Your task to perform on an android device: Check out the best rated electric trimmers on Lowe's Image 0: 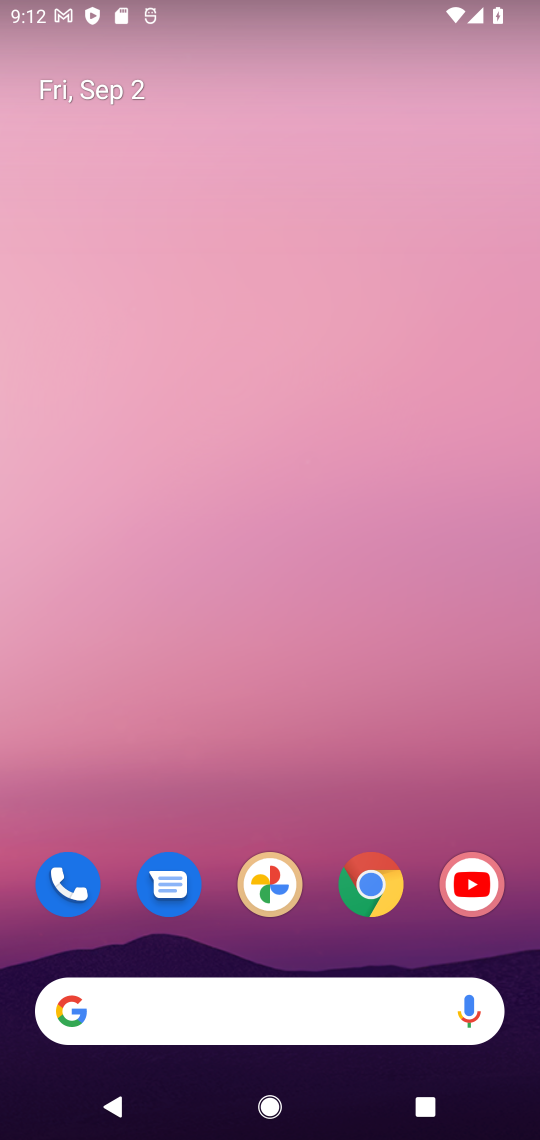
Step 0: click (387, 889)
Your task to perform on an android device: Check out the best rated electric trimmers on Lowe's Image 1: 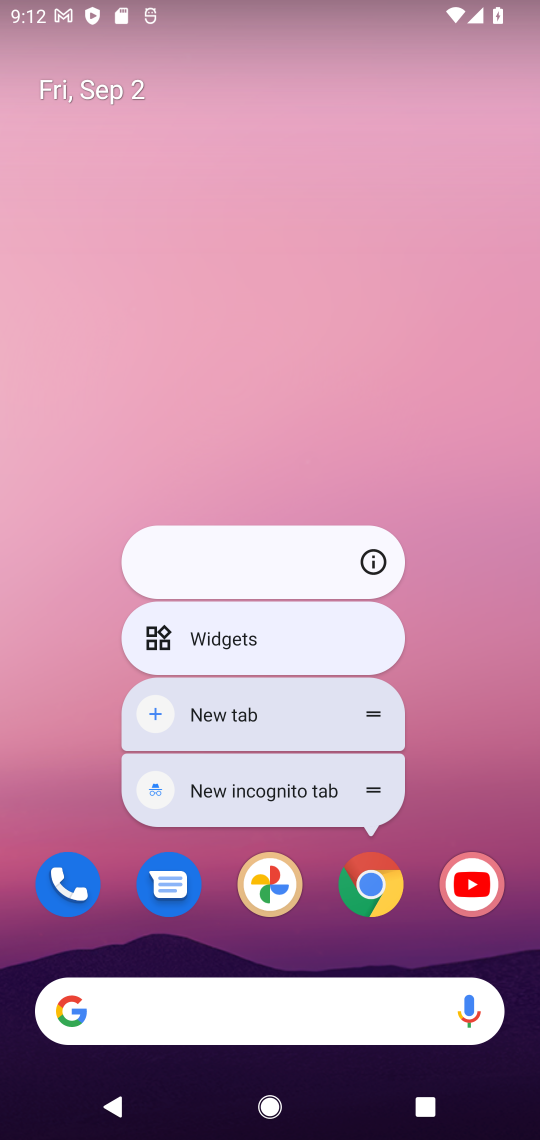
Step 1: click (381, 885)
Your task to perform on an android device: Check out the best rated electric trimmers on Lowe's Image 2: 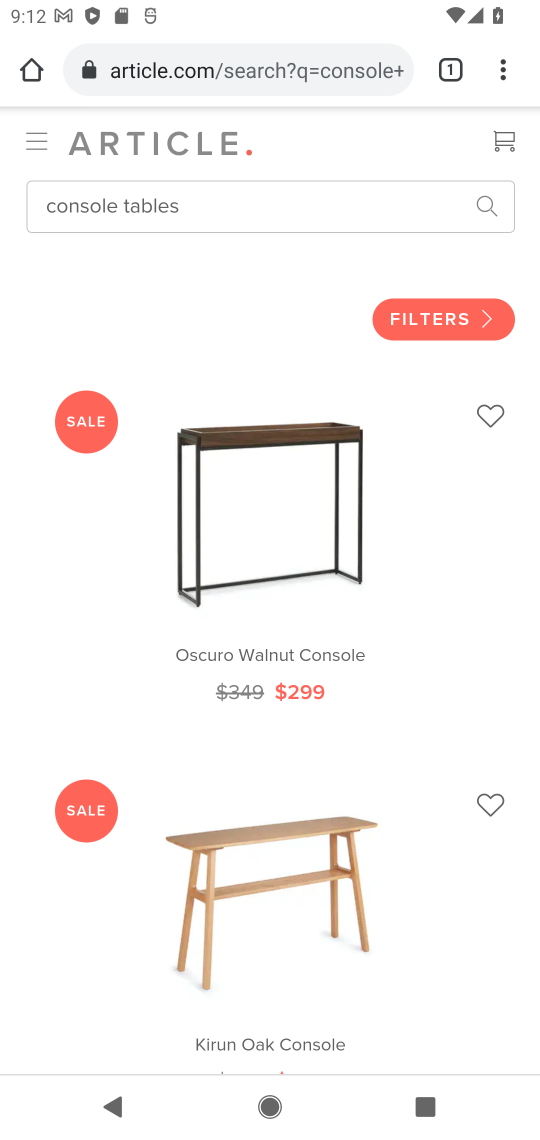
Step 2: click (265, 70)
Your task to perform on an android device: Check out the best rated electric trimmers on Lowe's Image 3: 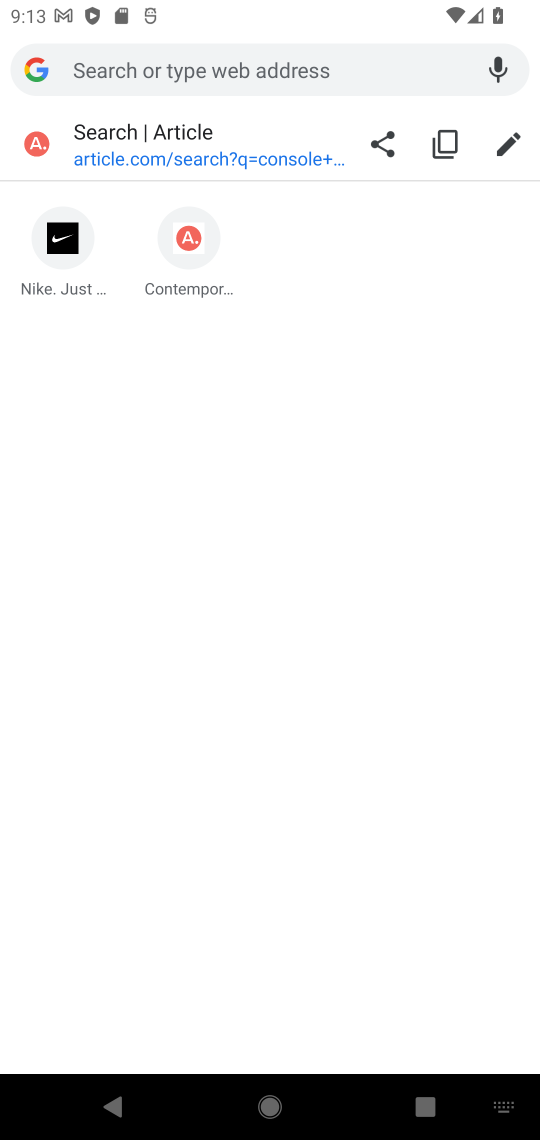
Step 3: type "Lowe's"
Your task to perform on an android device: Check out the best rated electric trimmers on Lowe's Image 4: 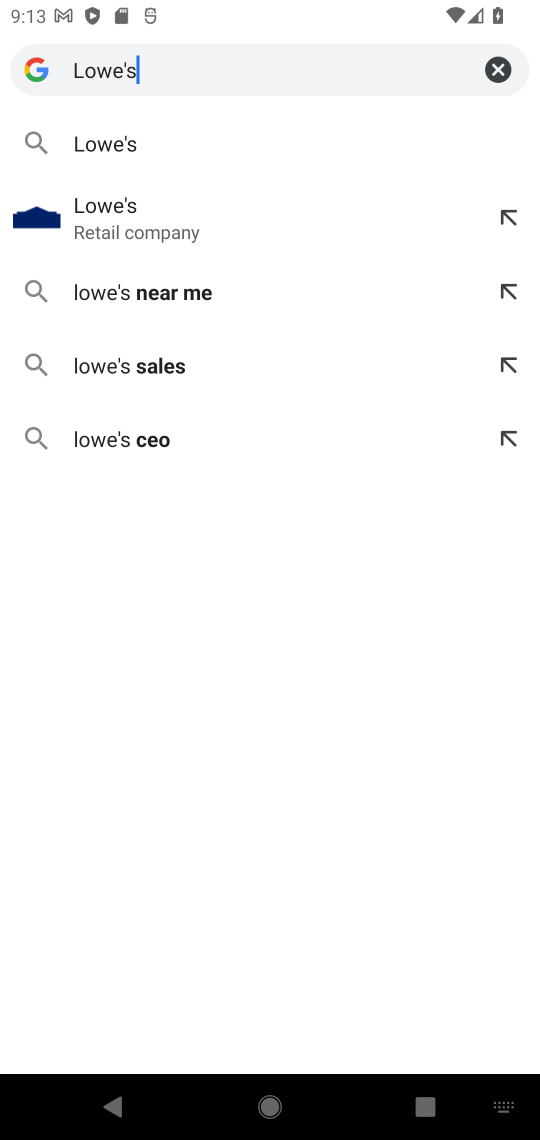
Step 4: click (99, 149)
Your task to perform on an android device: Check out the best rated electric trimmers on Lowe's Image 5: 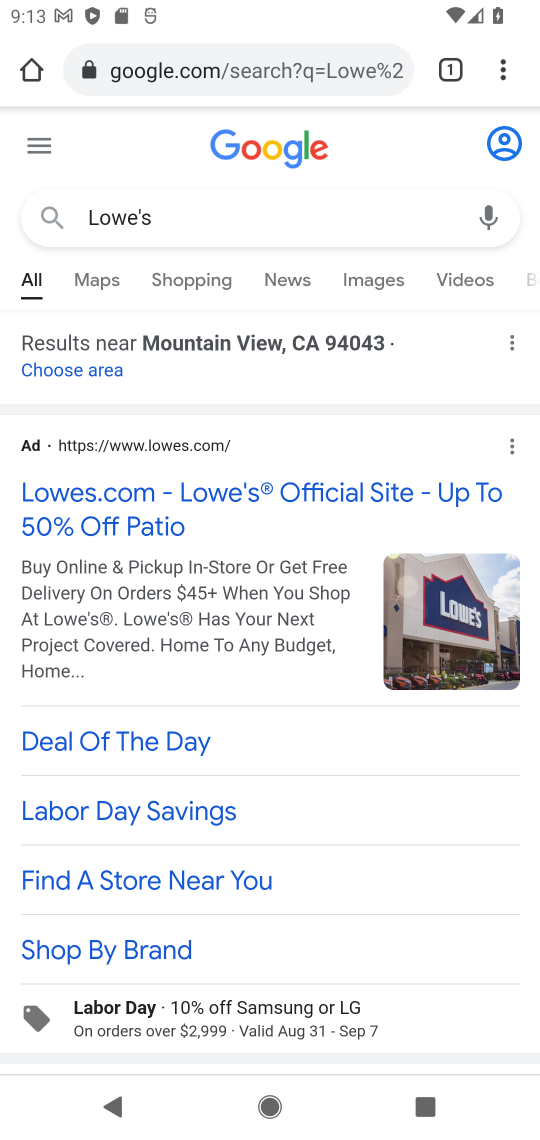
Step 5: click (76, 498)
Your task to perform on an android device: Check out the best rated electric trimmers on Lowe's Image 6: 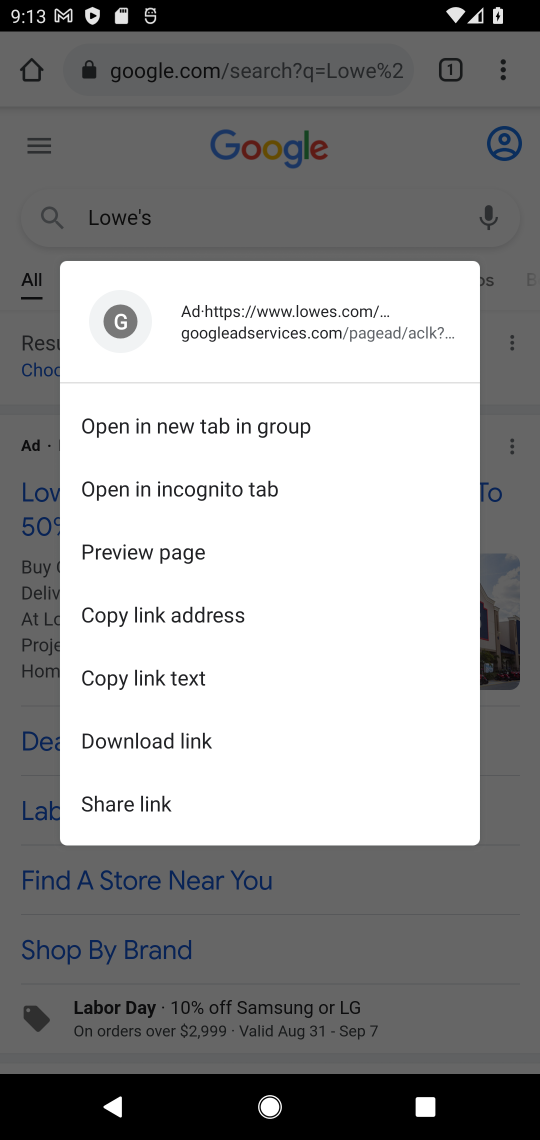
Step 6: click (49, 497)
Your task to perform on an android device: Check out the best rated electric trimmers on Lowe's Image 7: 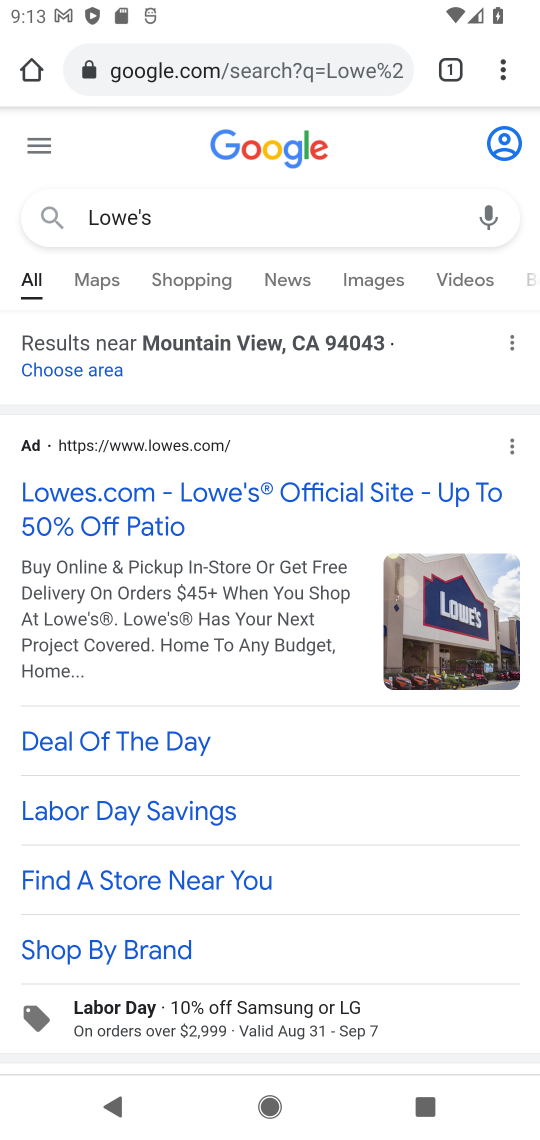
Step 7: click (89, 520)
Your task to perform on an android device: Check out the best rated electric trimmers on Lowe's Image 8: 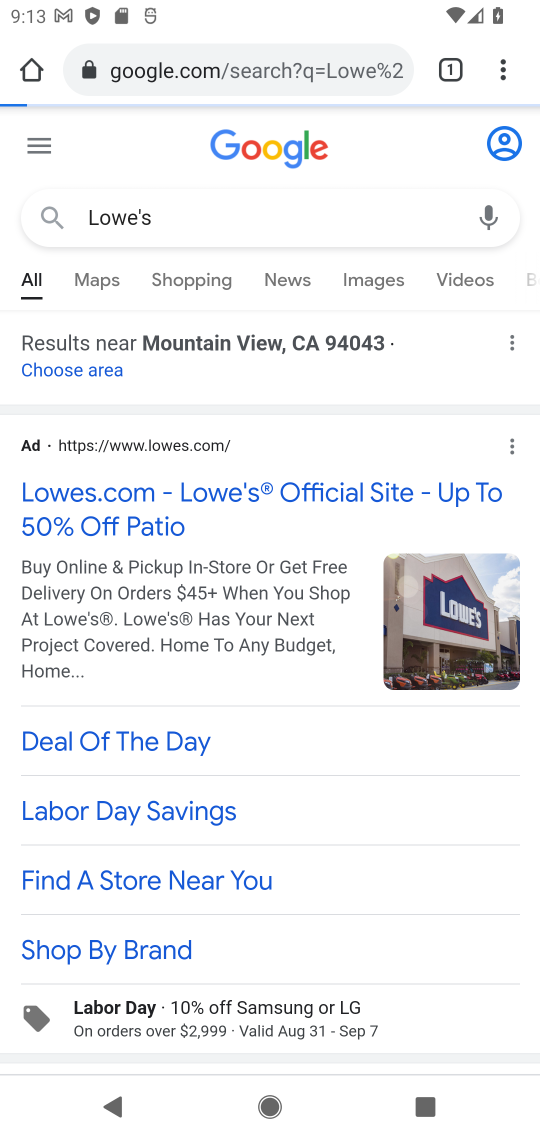
Step 8: drag from (418, 879) to (419, 357)
Your task to perform on an android device: Check out the best rated electric trimmers on Lowe's Image 9: 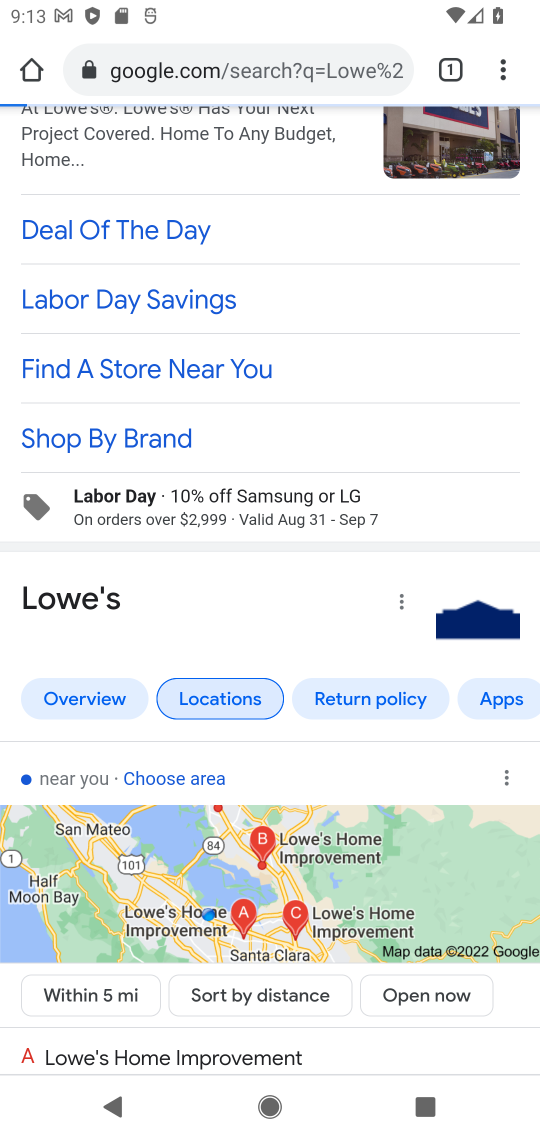
Step 9: click (86, 601)
Your task to perform on an android device: Check out the best rated electric trimmers on Lowe's Image 10: 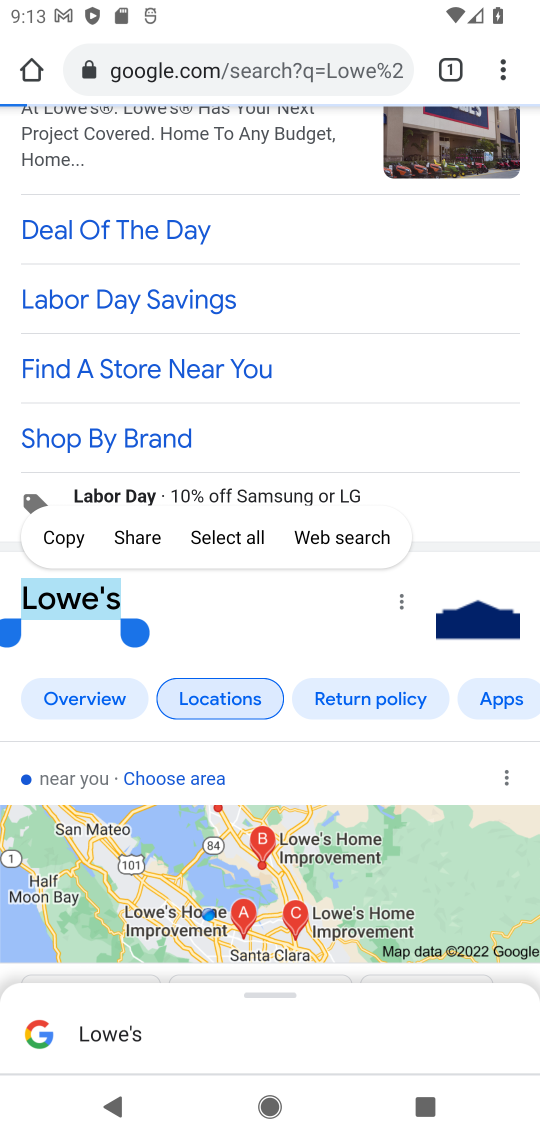
Step 10: drag from (341, 765) to (311, 248)
Your task to perform on an android device: Check out the best rated electric trimmers on Lowe's Image 11: 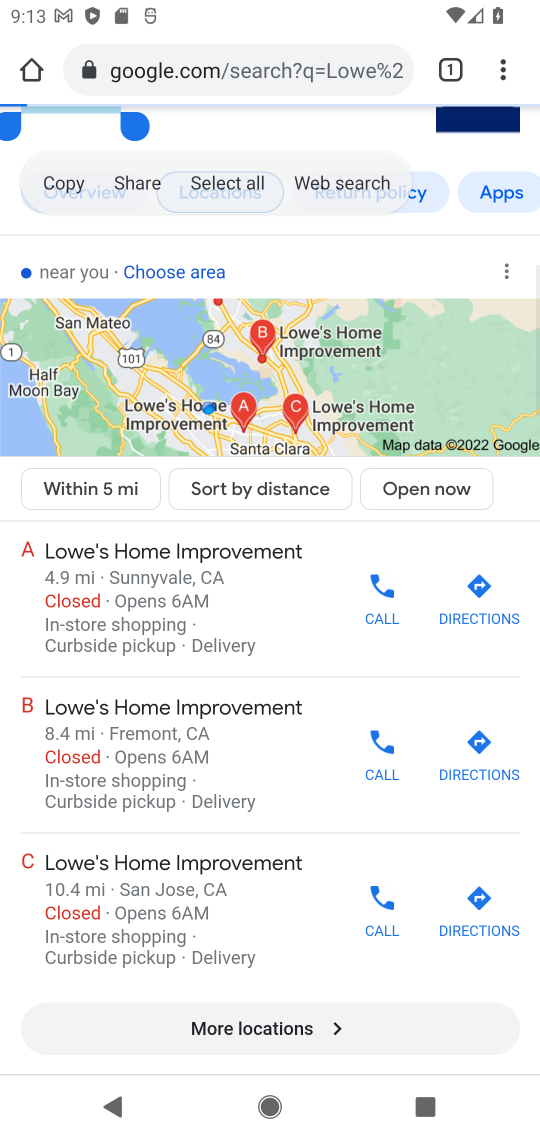
Step 11: drag from (381, 716) to (346, 306)
Your task to perform on an android device: Check out the best rated electric trimmers on Lowe's Image 12: 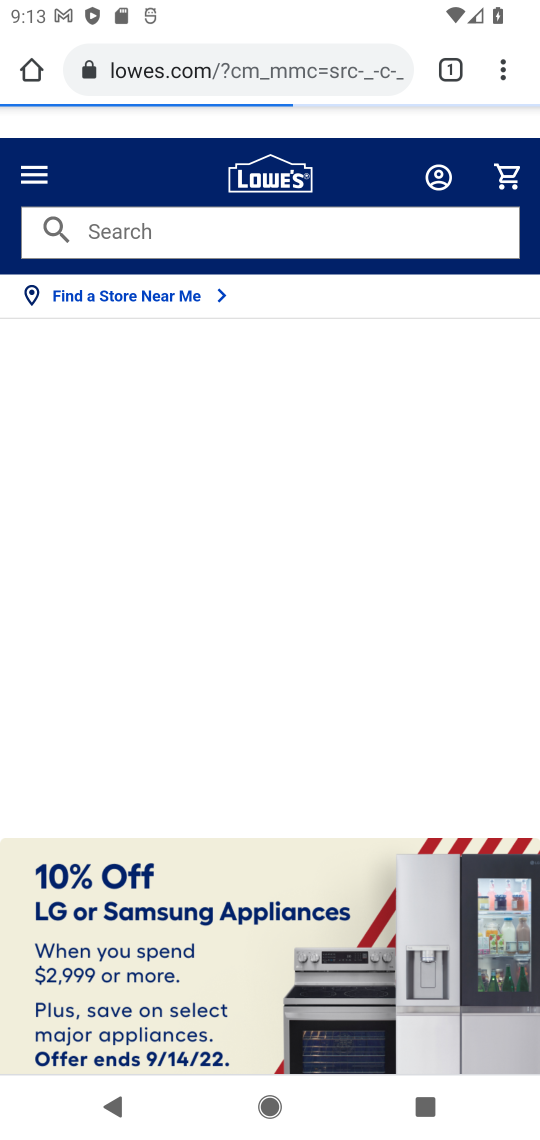
Step 12: click (114, 240)
Your task to perform on an android device: Check out the best rated electric trimmers on Lowe's Image 13: 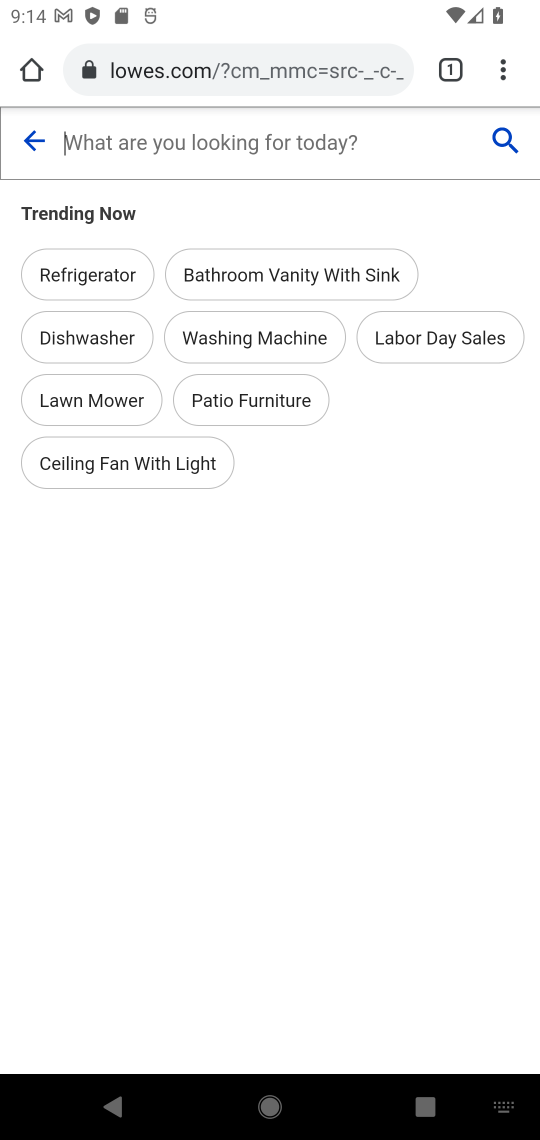
Step 13: type "best rated electric trimmers "
Your task to perform on an android device: Check out the best rated electric trimmers on Lowe's Image 14: 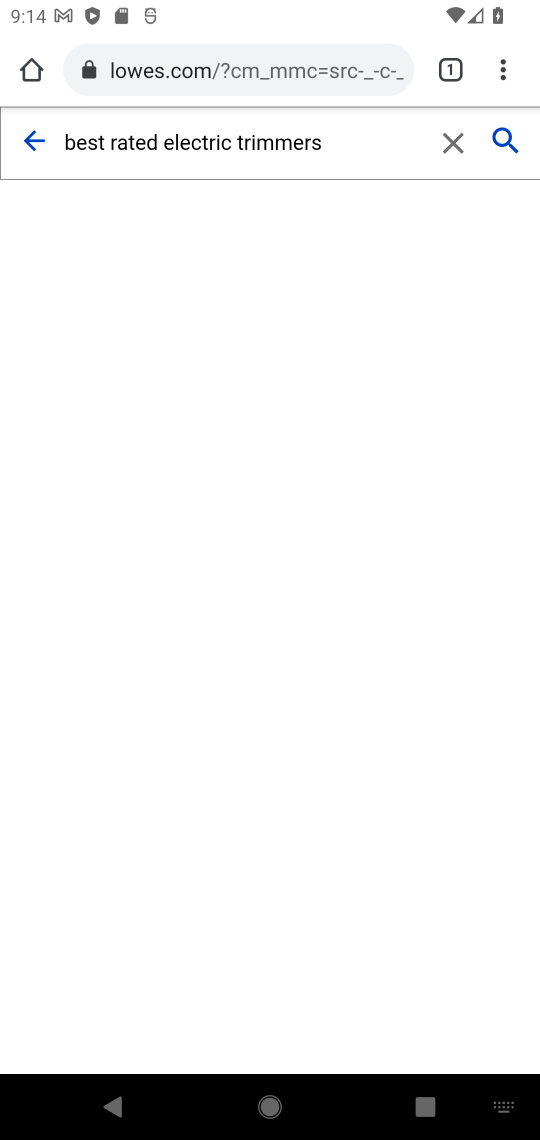
Step 14: click (500, 142)
Your task to perform on an android device: Check out the best rated electric trimmers on Lowe's Image 15: 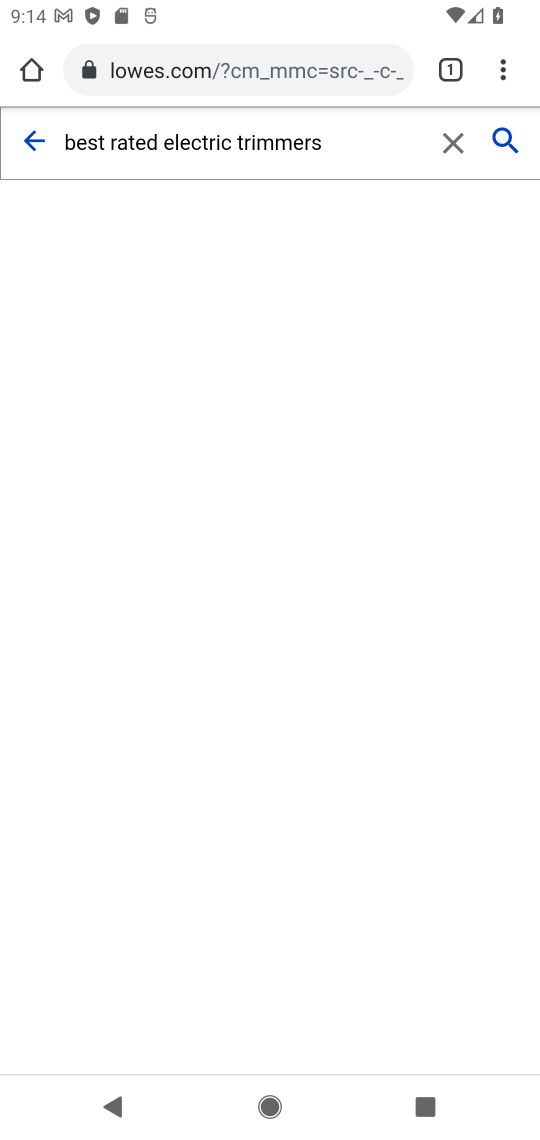
Step 15: click (501, 144)
Your task to perform on an android device: Check out the best rated electric trimmers on Lowe's Image 16: 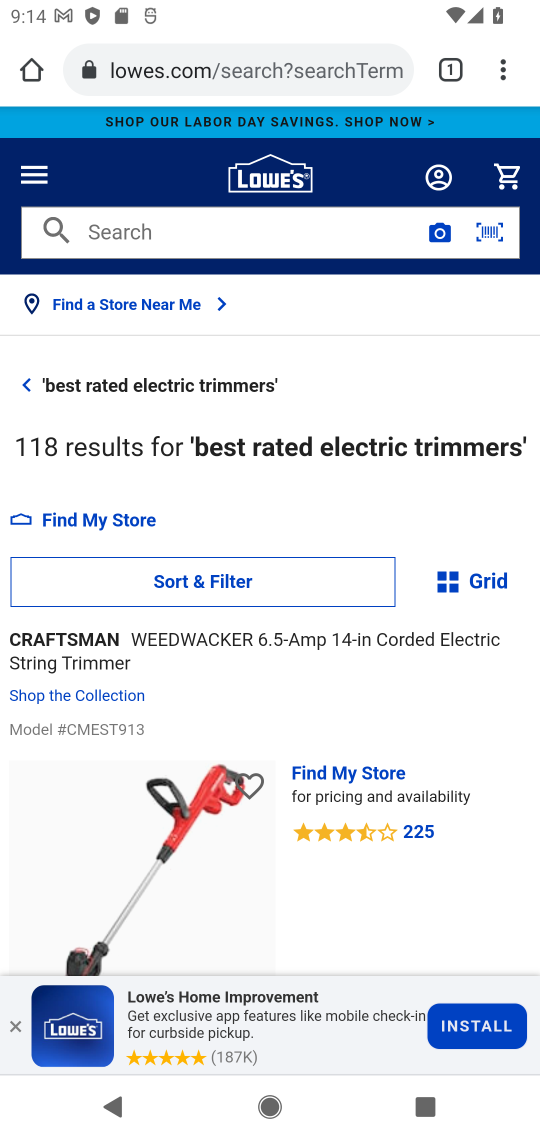
Step 16: drag from (289, 650) to (297, 391)
Your task to perform on an android device: Check out the best rated electric trimmers on Lowe's Image 17: 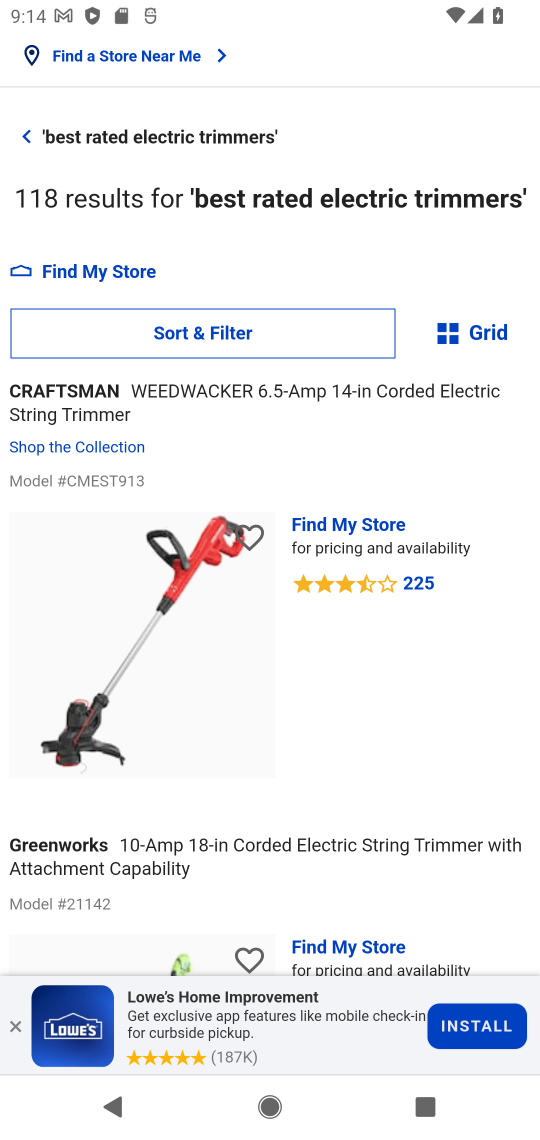
Step 17: drag from (268, 698) to (282, 452)
Your task to perform on an android device: Check out the best rated electric trimmers on Lowe's Image 18: 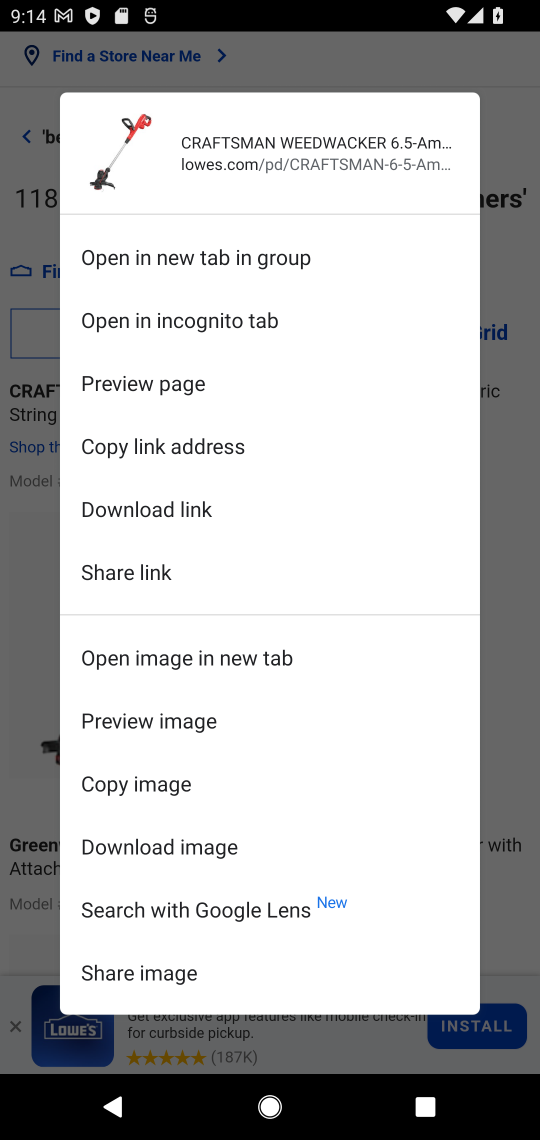
Step 18: click (521, 511)
Your task to perform on an android device: Check out the best rated electric trimmers on Lowe's Image 19: 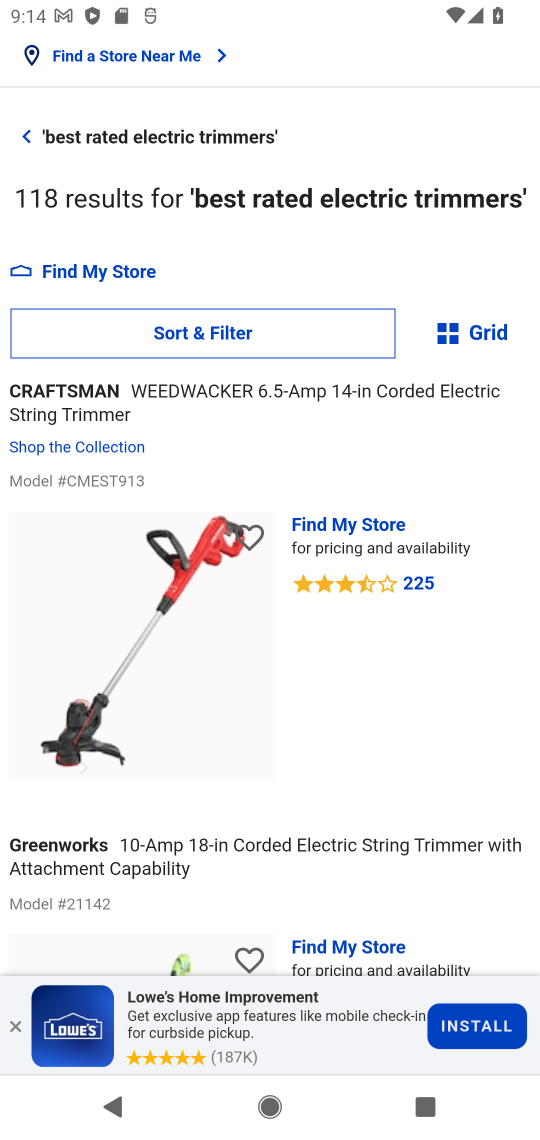
Step 19: task complete